Your task to perform on an android device: Search for Italian restaurants on Maps Image 0: 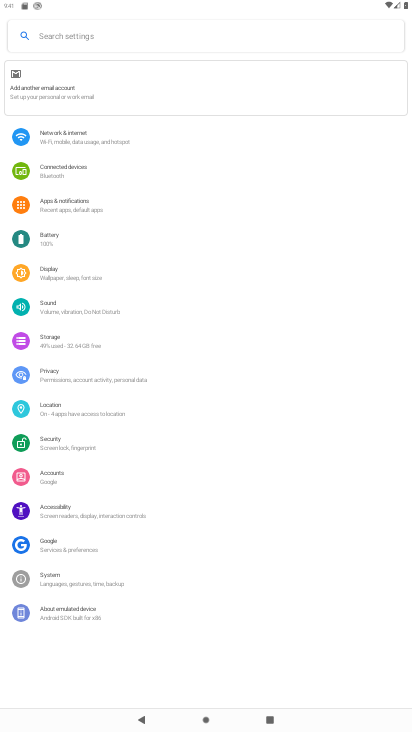
Step 0: press home button
Your task to perform on an android device: Search for Italian restaurants on Maps Image 1: 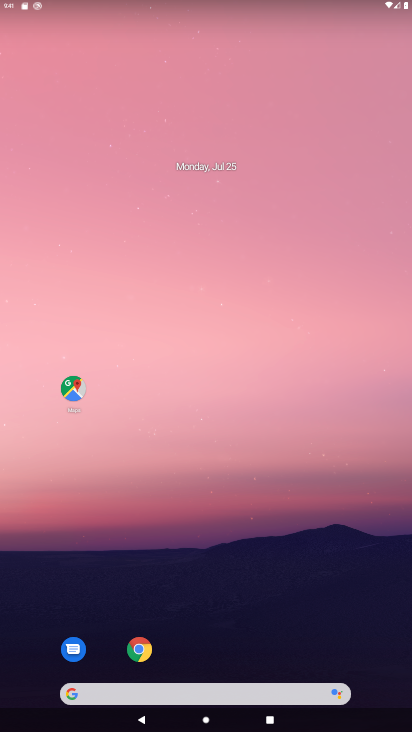
Step 1: click (78, 391)
Your task to perform on an android device: Search for Italian restaurants on Maps Image 2: 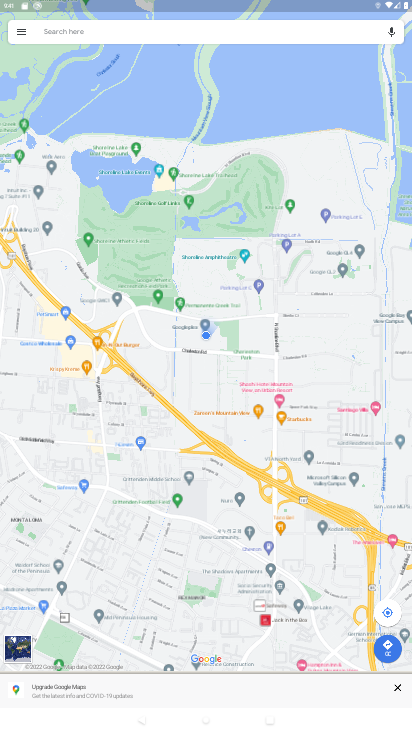
Step 2: click (143, 29)
Your task to perform on an android device: Search for Italian restaurants on Maps Image 3: 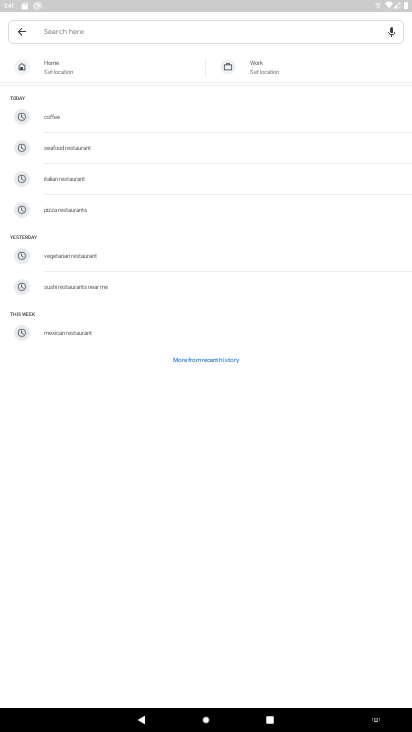
Step 3: type "italian restaurants"
Your task to perform on an android device: Search for Italian restaurants on Maps Image 4: 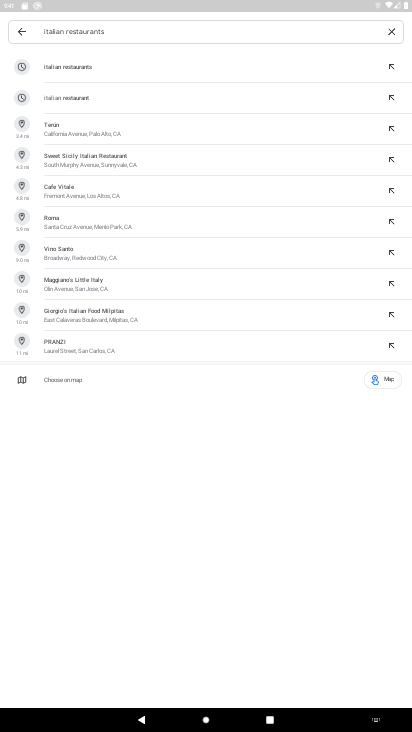
Step 4: click (103, 69)
Your task to perform on an android device: Search for Italian restaurants on Maps Image 5: 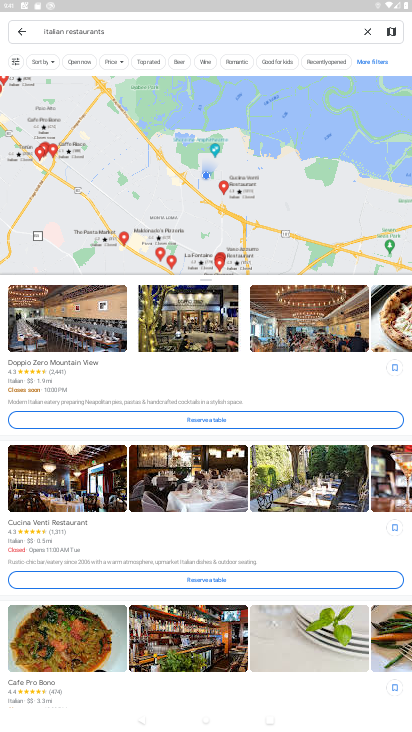
Step 5: task complete